Your task to perform on an android device: Open notification settings Image 0: 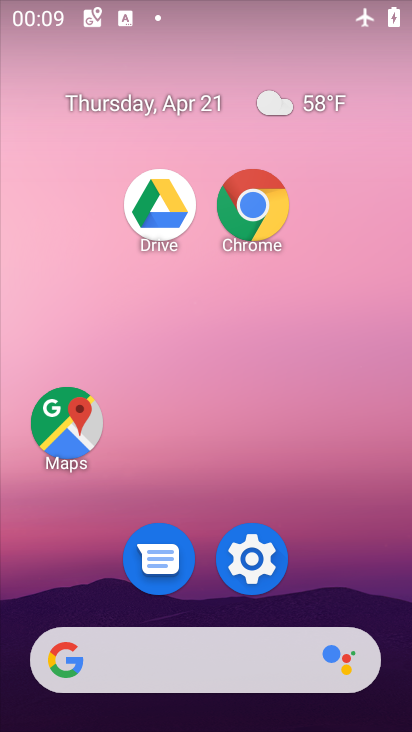
Step 0: click (279, 560)
Your task to perform on an android device: Open notification settings Image 1: 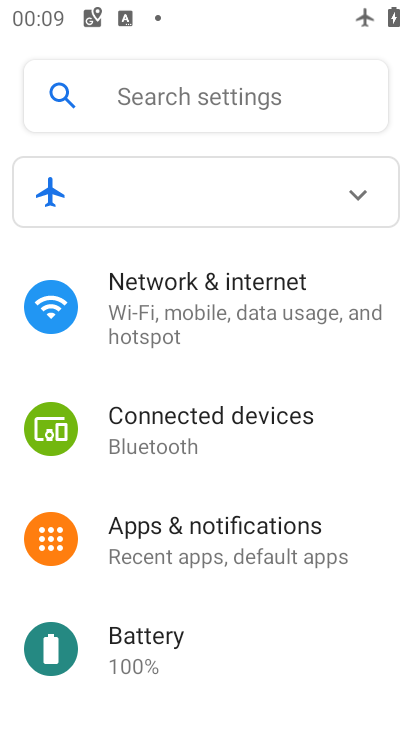
Step 1: click (243, 288)
Your task to perform on an android device: Open notification settings Image 2: 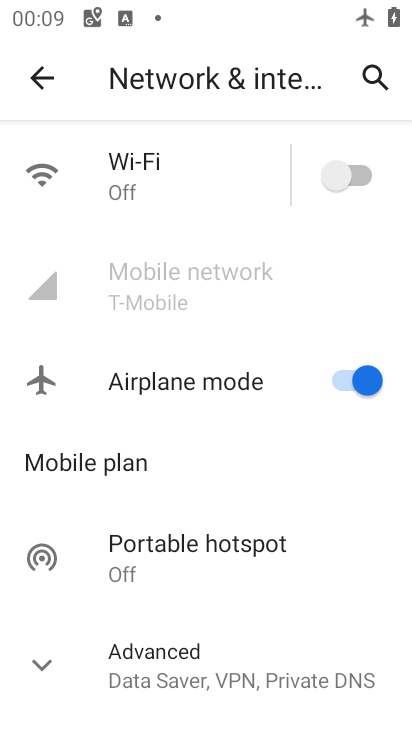
Step 2: press back button
Your task to perform on an android device: Open notification settings Image 3: 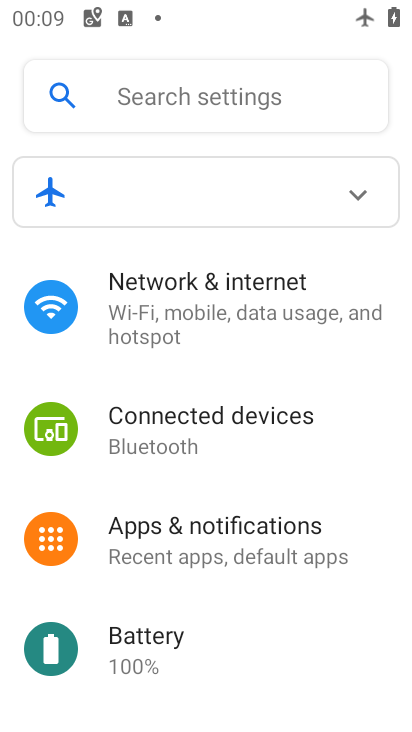
Step 3: click (316, 557)
Your task to perform on an android device: Open notification settings Image 4: 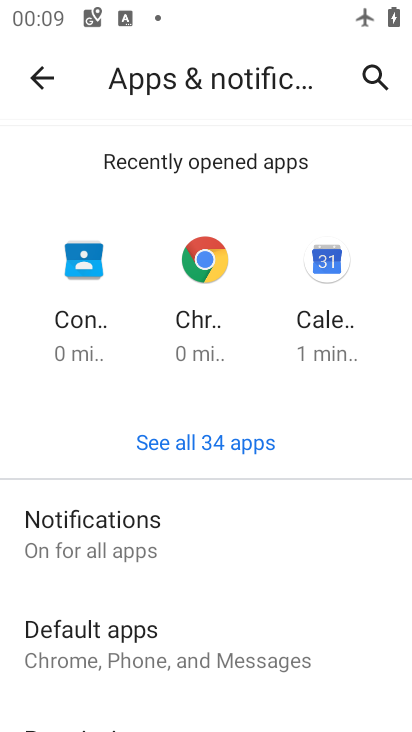
Step 4: task complete